Your task to perform on an android device: Is it going to rain tomorrow? Image 0: 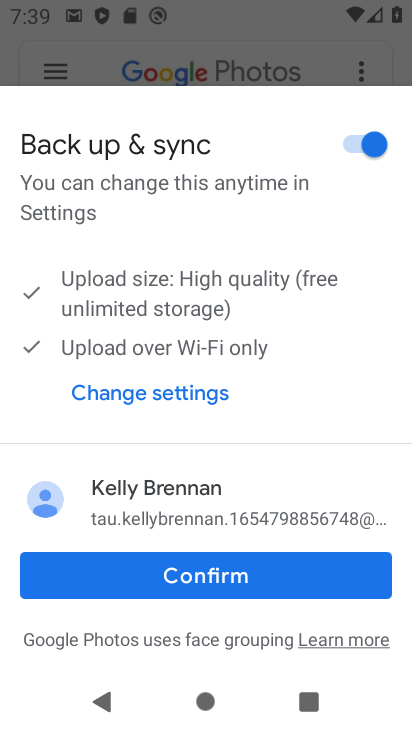
Step 0: press home button
Your task to perform on an android device: Is it going to rain tomorrow? Image 1: 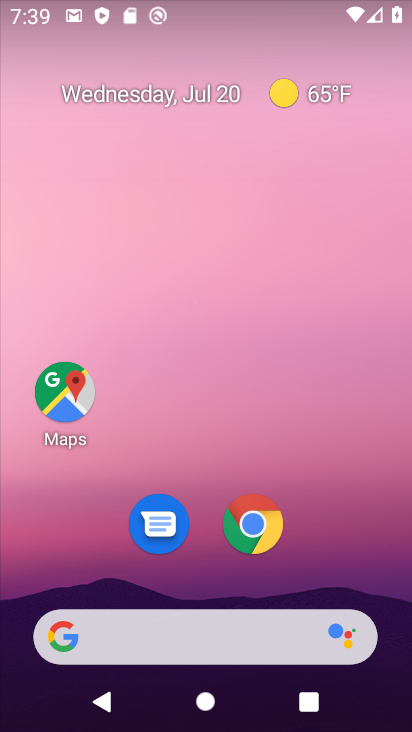
Step 1: click (178, 645)
Your task to perform on an android device: Is it going to rain tomorrow? Image 2: 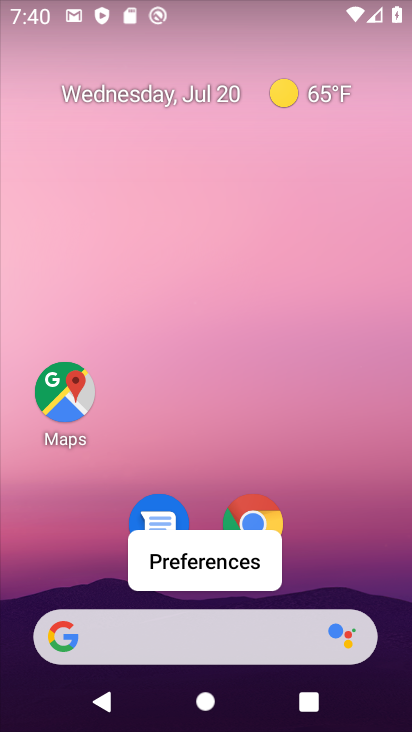
Step 2: click (296, 92)
Your task to perform on an android device: Is it going to rain tomorrow? Image 3: 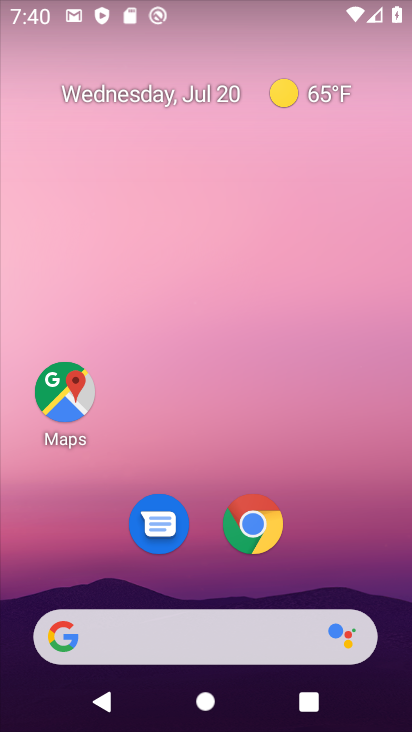
Step 3: click (319, 86)
Your task to perform on an android device: Is it going to rain tomorrow? Image 4: 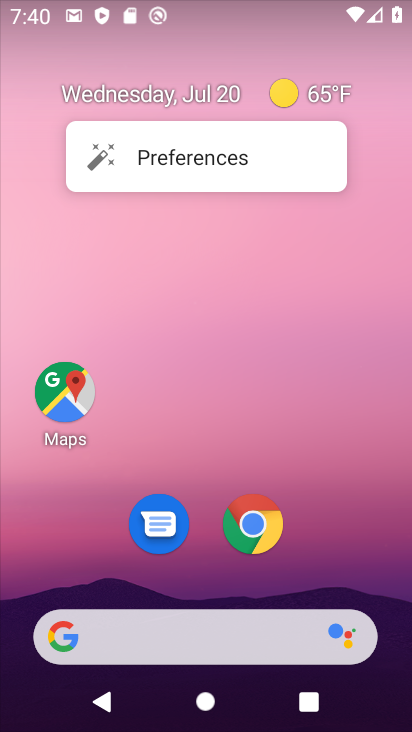
Step 4: click (294, 97)
Your task to perform on an android device: Is it going to rain tomorrow? Image 5: 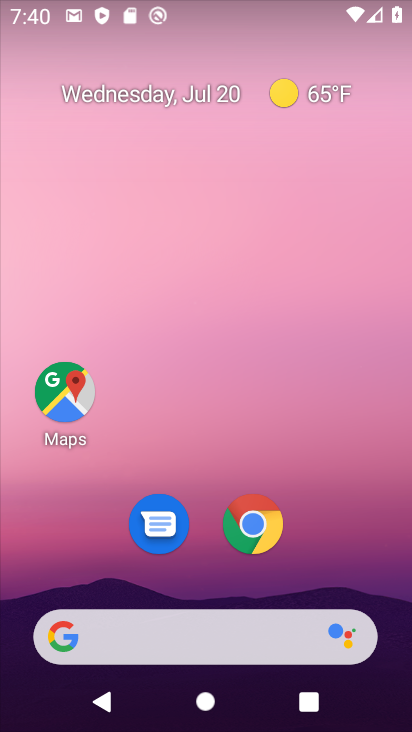
Step 5: click (294, 97)
Your task to perform on an android device: Is it going to rain tomorrow? Image 6: 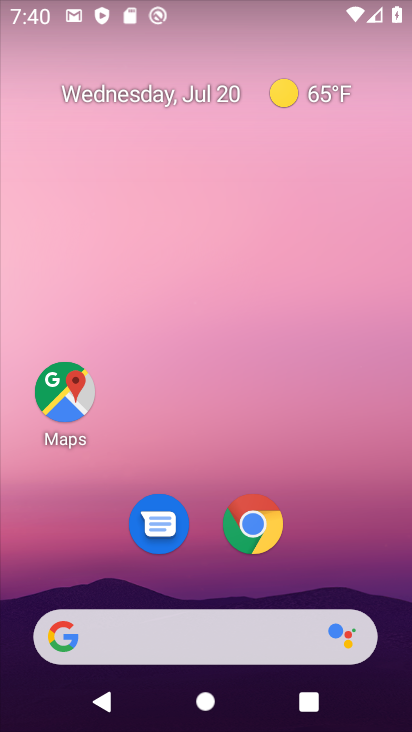
Step 6: click (203, 644)
Your task to perform on an android device: Is it going to rain tomorrow? Image 7: 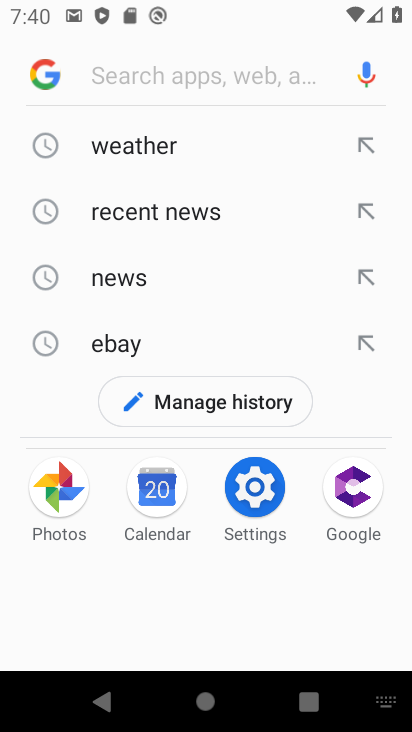
Step 7: click (170, 140)
Your task to perform on an android device: Is it going to rain tomorrow? Image 8: 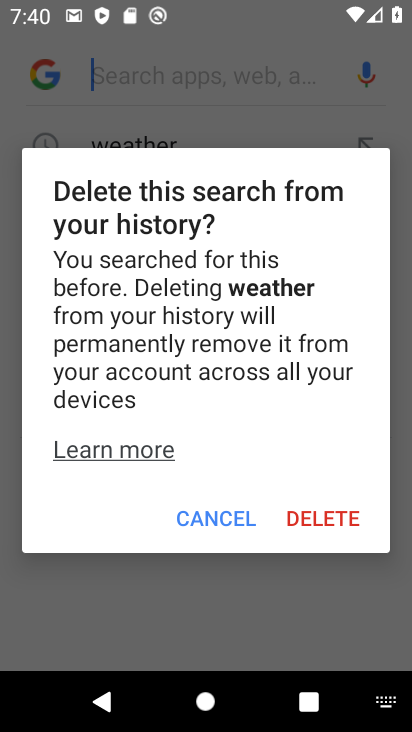
Step 8: click (222, 519)
Your task to perform on an android device: Is it going to rain tomorrow? Image 9: 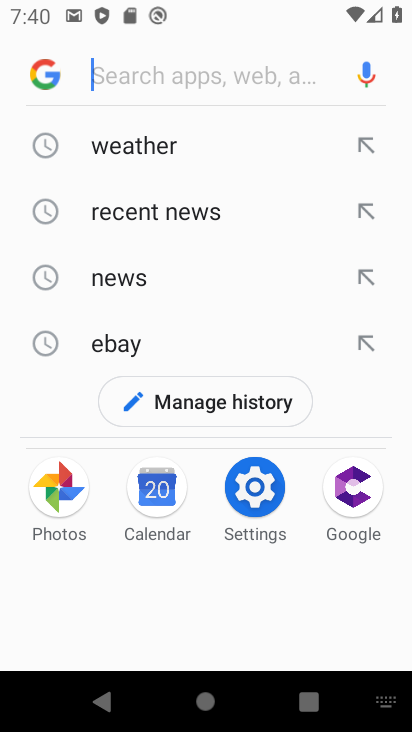
Step 9: click (360, 138)
Your task to perform on an android device: Is it going to rain tomorrow? Image 10: 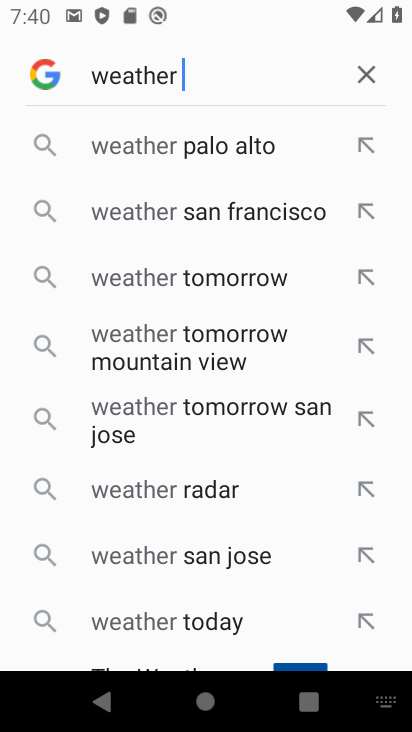
Step 10: click (48, 71)
Your task to perform on an android device: Is it going to rain tomorrow? Image 11: 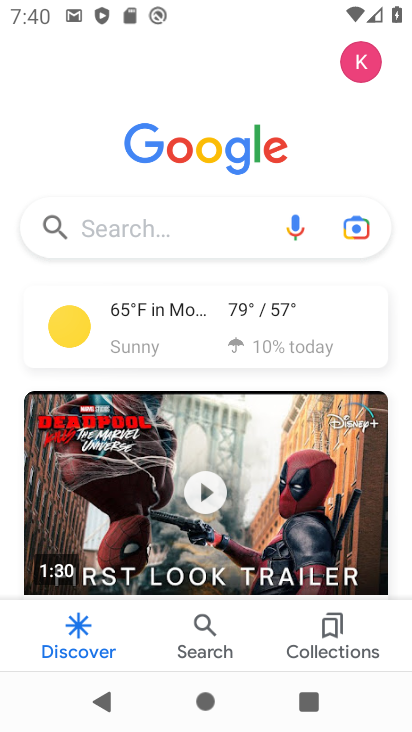
Step 11: click (139, 318)
Your task to perform on an android device: Is it going to rain tomorrow? Image 12: 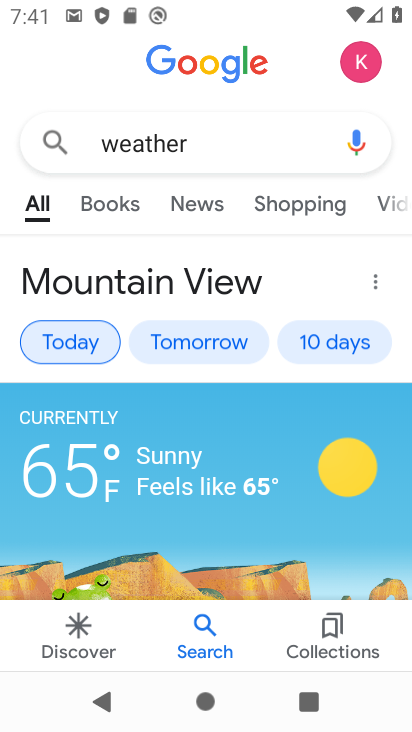
Step 12: click (188, 339)
Your task to perform on an android device: Is it going to rain tomorrow? Image 13: 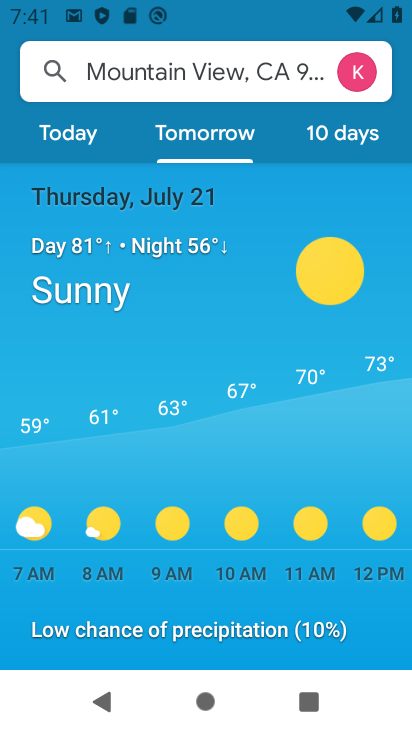
Step 13: task complete